Your task to perform on an android device: Open calendar and show me the third week of next month Image 0: 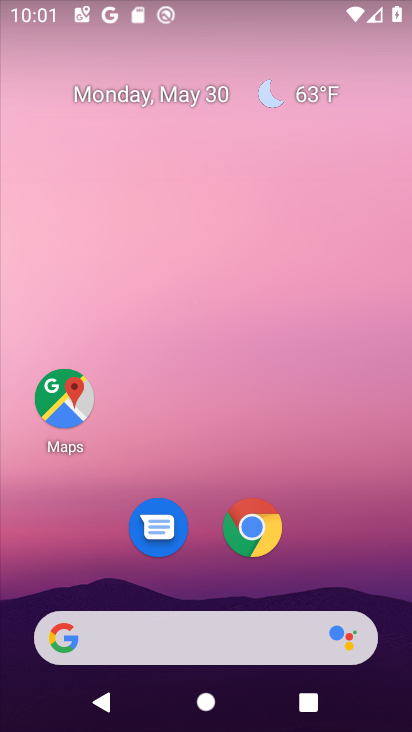
Step 0: drag from (302, 558) to (278, 199)
Your task to perform on an android device: Open calendar and show me the third week of next month Image 1: 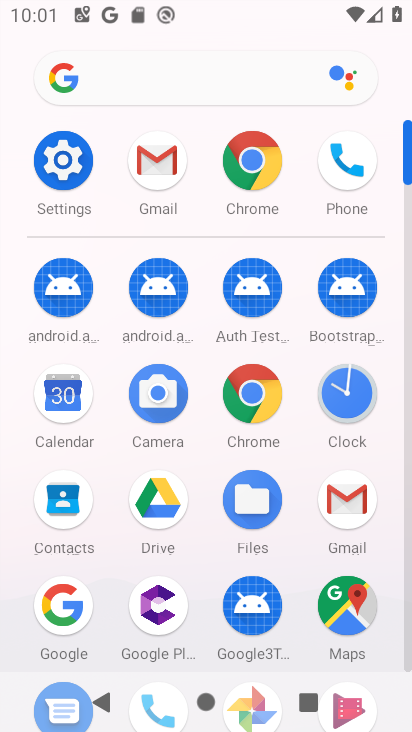
Step 1: click (68, 376)
Your task to perform on an android device: Open calendar and show me the third week of next month Image 2: 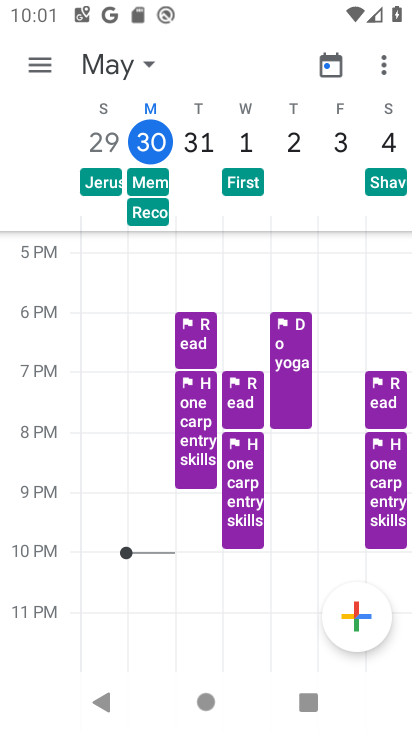
Step 2: click (35, 65)
Your task to perform on an android device: Open calendar and show me the third week of next month Image 3: 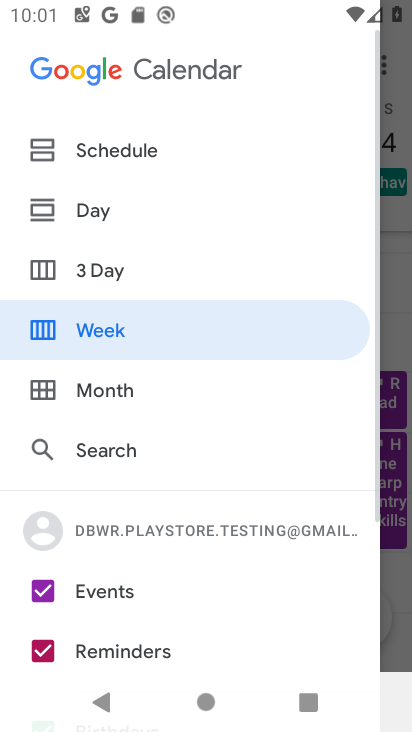
Step 3: click (126, 386)
Your task to perform on an android device: Open calendar and show me the third week of next month Image 4: 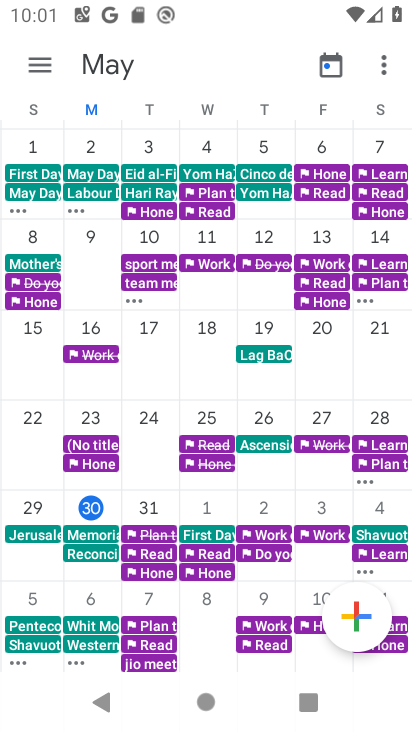
Step 4: task complete